Your task to perform on an android device: Go to wifi settings Image 0: 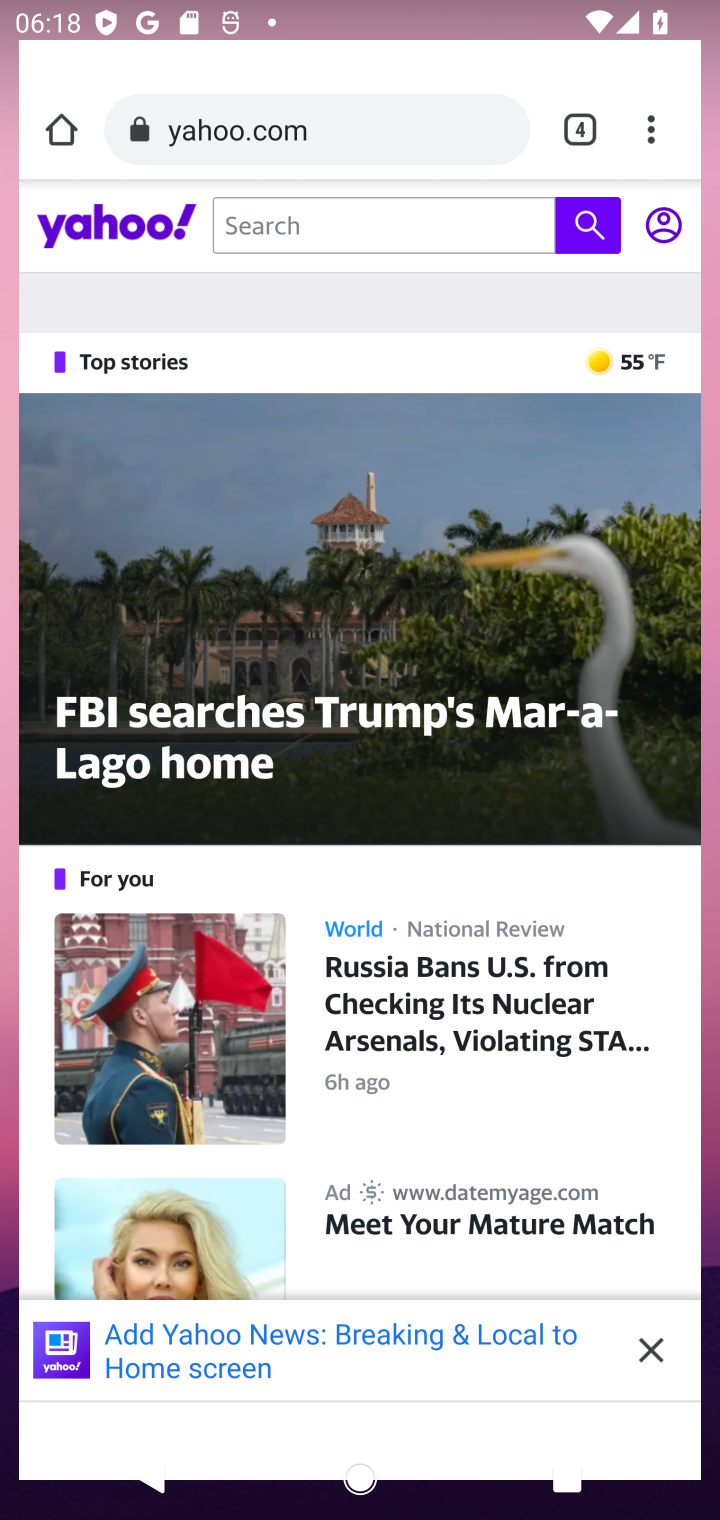
Step 0: press home button
Your task to perform on an android device: Go to wifi settings Image 1: 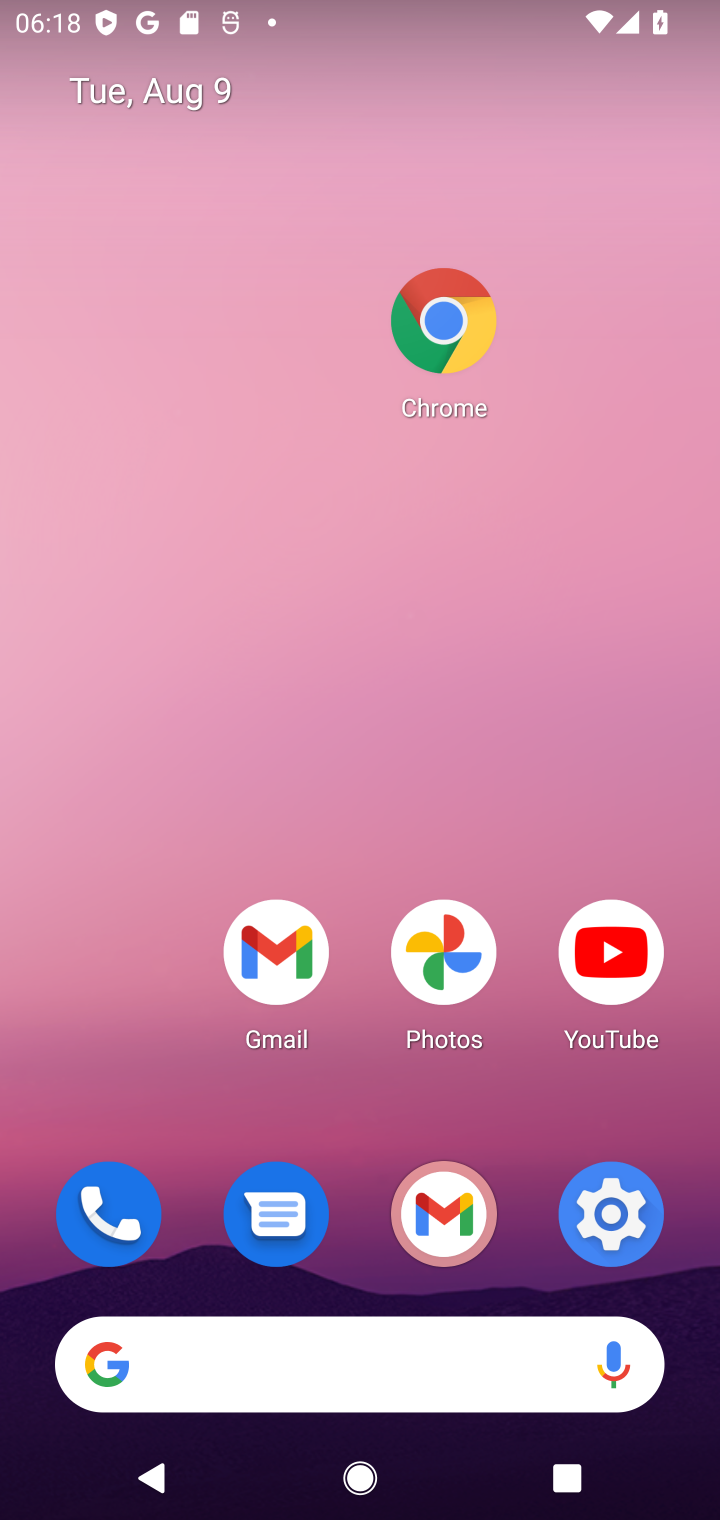
Step 1: click (619, 1198)
Your task to perform on an android device: Go to wifi settings Image 2: 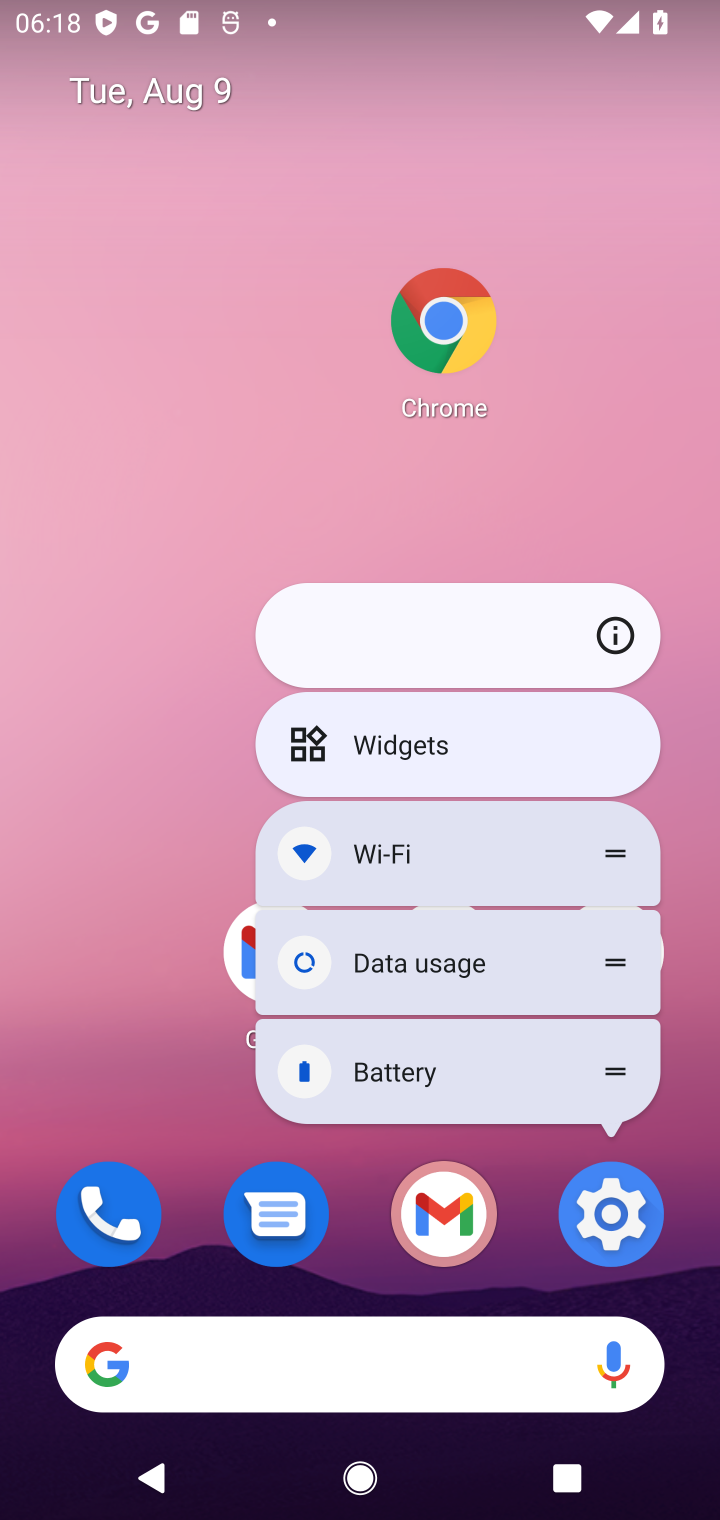
Step 2: click (604, 1197)
Your task to perform on an android device: Go to wifi settings Image 3: 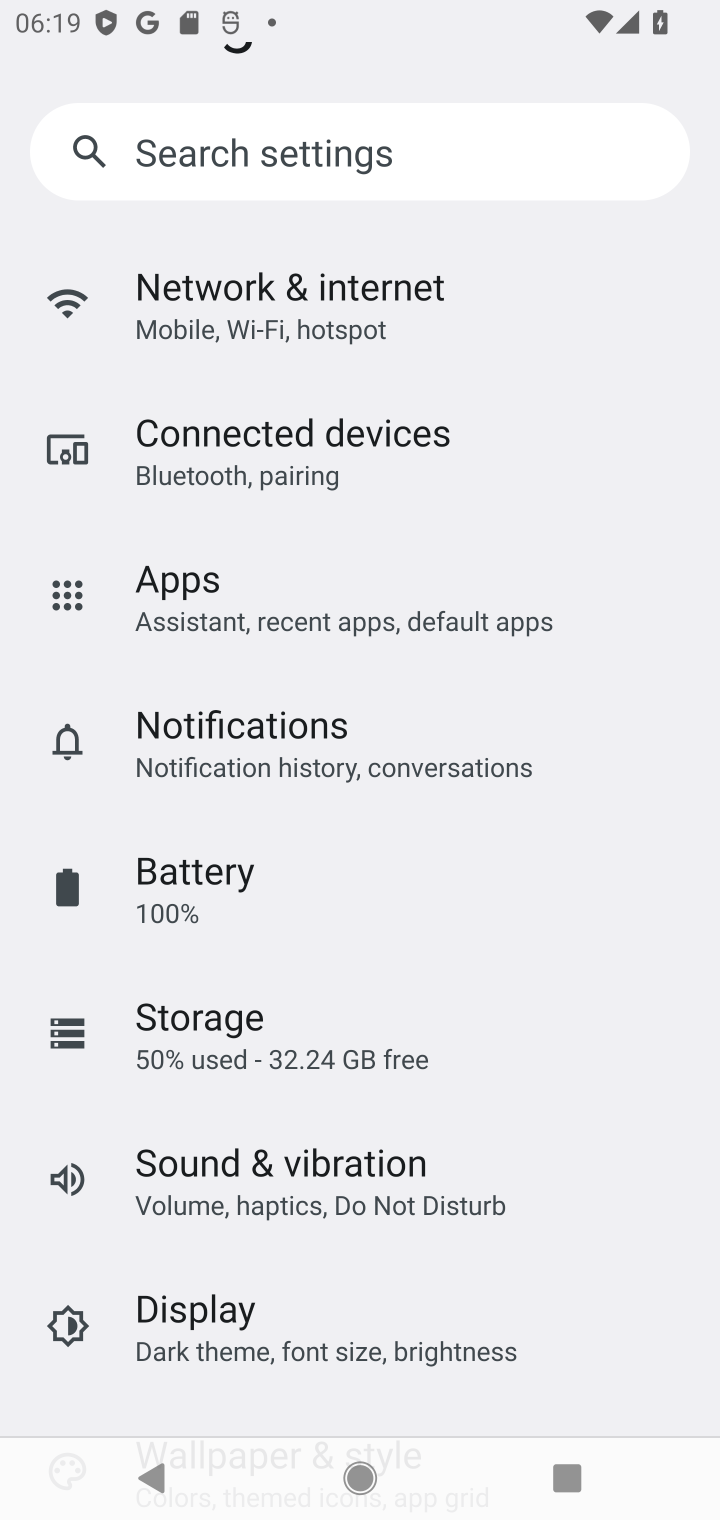
Step 3: click (312, 317)
Your task to perform on an android device: Go to wifi settings Image 4: 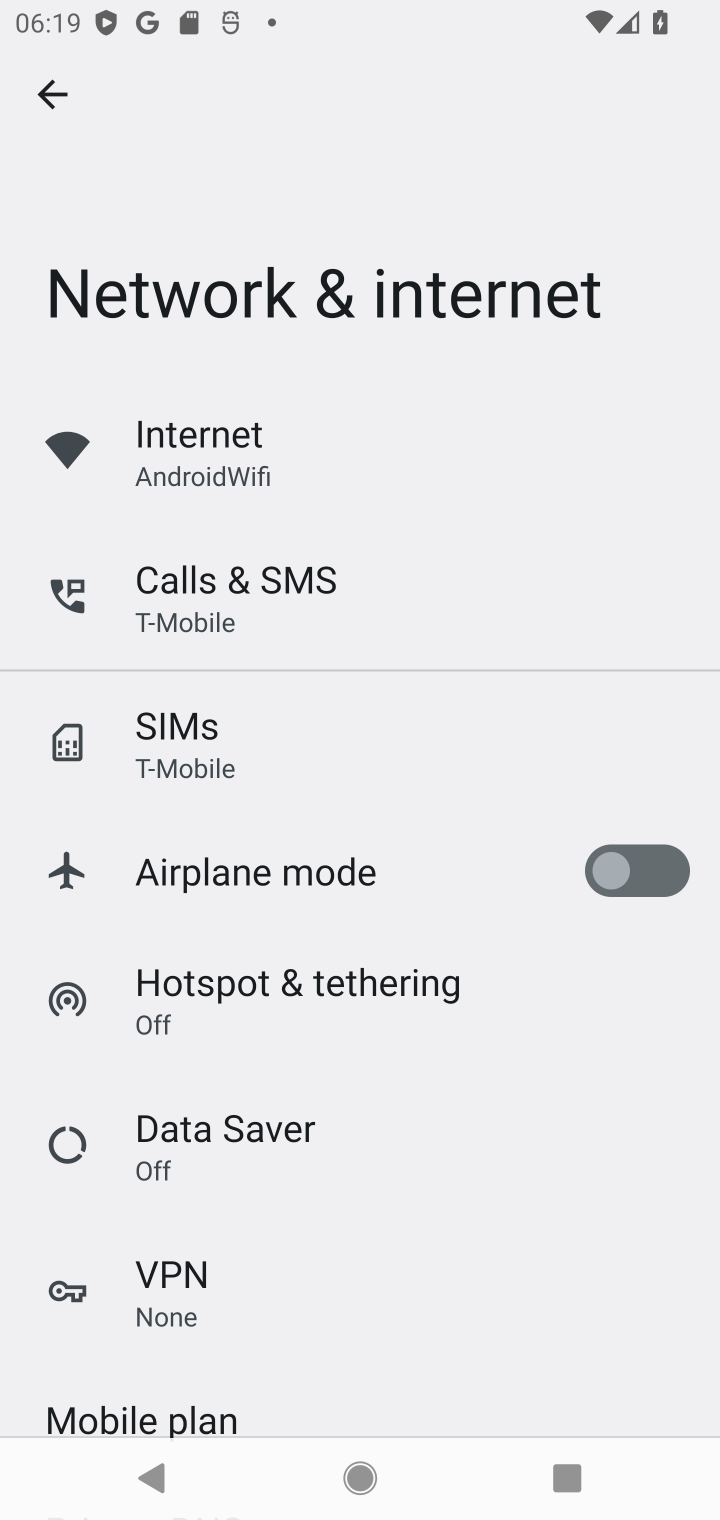
Step 4: click (226, 474)
Your task to perform on an android device: Go to wifi settings Image 5: 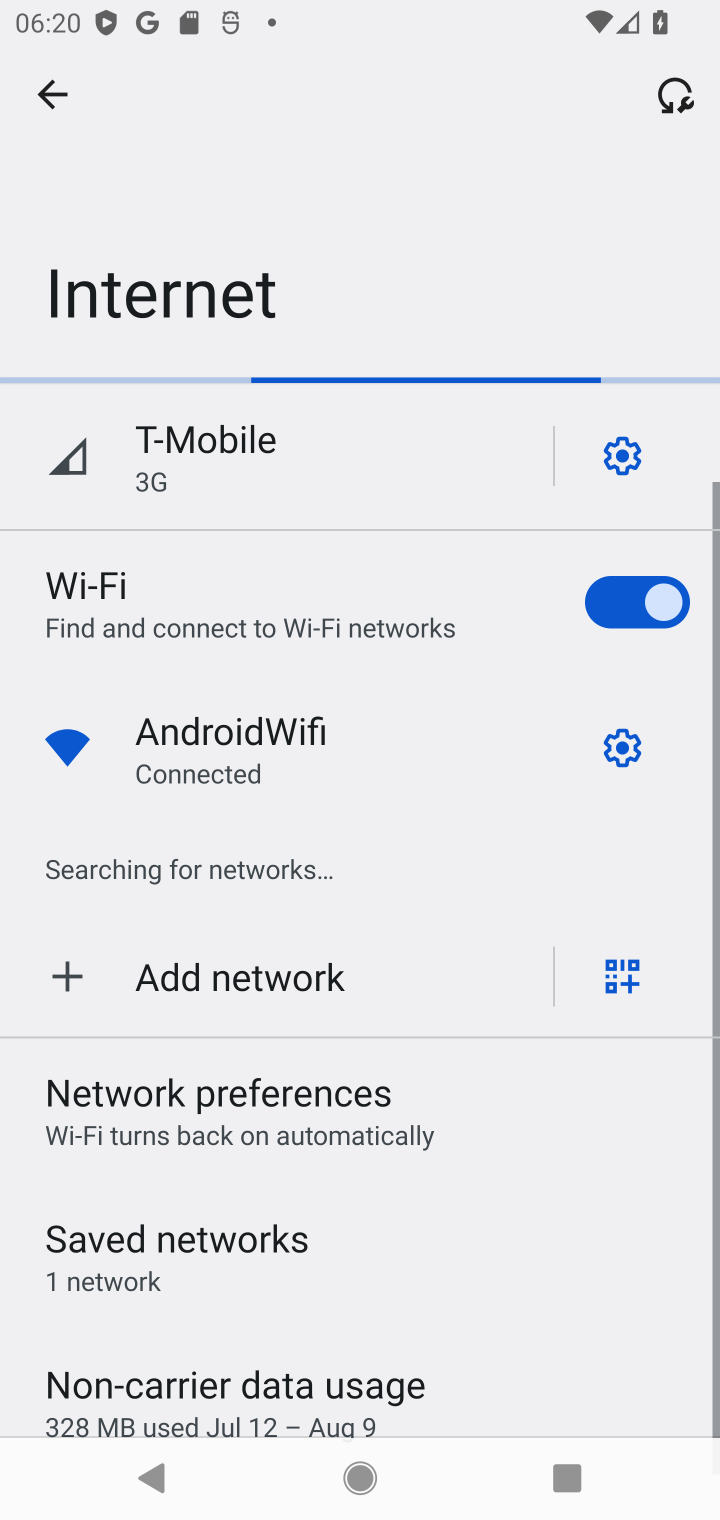
Step 5: task complete